Your task to perform on an android device: toggle javascript in the chrome app Image 0: 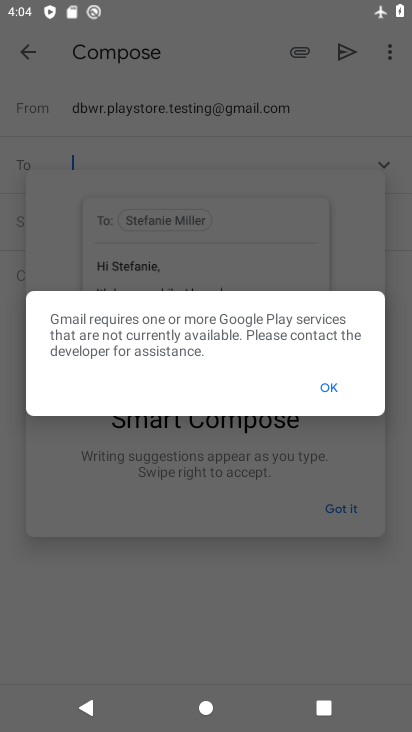
Step 0: press home button
Your task to perform on an android device: toggle javascript in the chrome app Image 1: 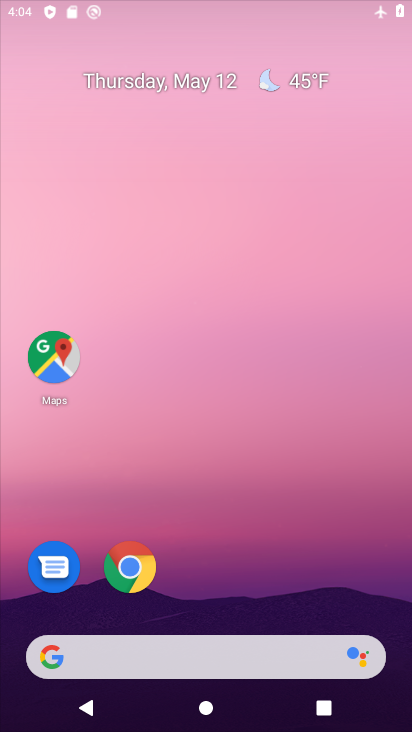
Step 1: drag from (244, 510) to (242, 122)
Your task to perform on an android device: toggle javascript in the chrome app Image 2: 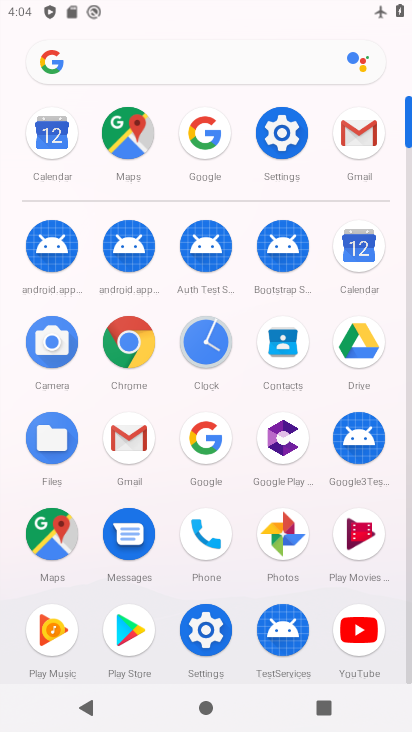
Step 2: click (131, 345)
Your task to perform on an android device: toggle javascript in the chrome app Image 3: 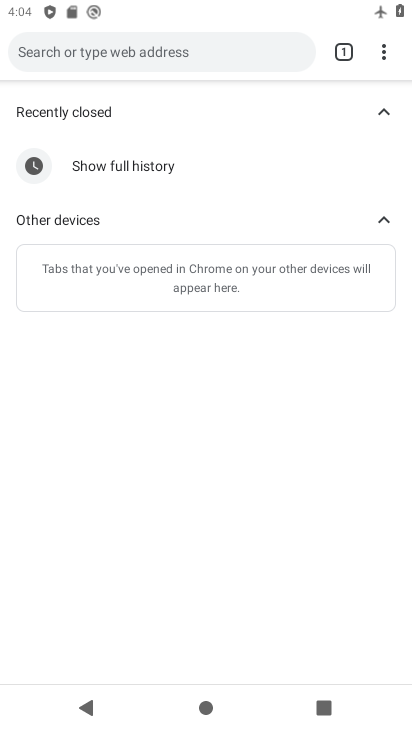
Step 3: drag from (381, 55) to (208, 490)
Your task to perform on an android device: toggle javascript in the chrome app Image 4: 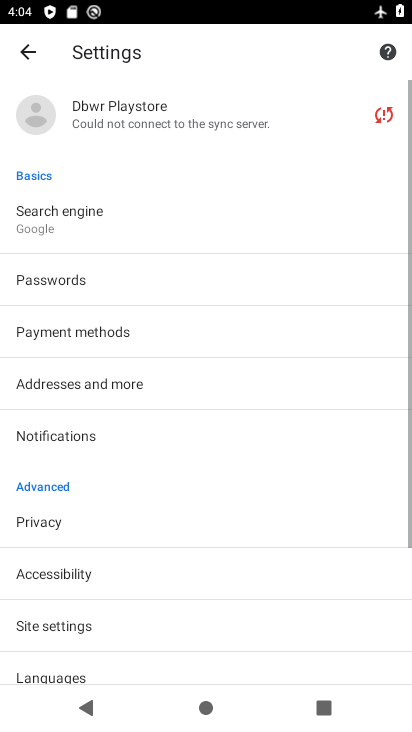
Step 4: click (151, 616)
Your task to perform on an android device: toggle javascript in the chrome app Image 5: 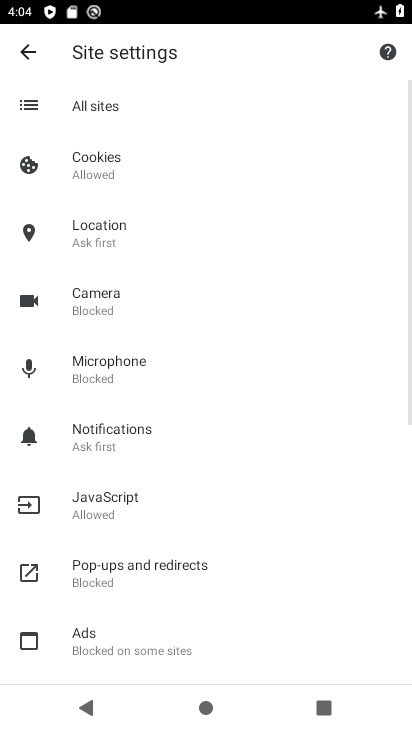
Step 5: click (135, 522)
Your task to perform on an android device: toggle javascript in the chrome app Image 6: 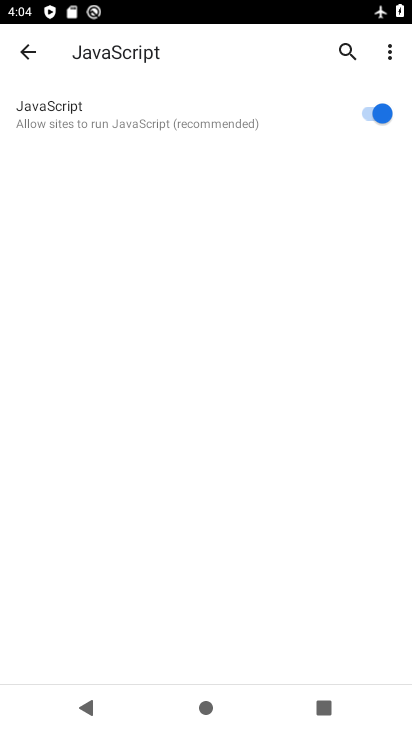
Step 6: click (361, 116)
Your task to perform on an android device: toggle javascript in the chrome app Image 7: 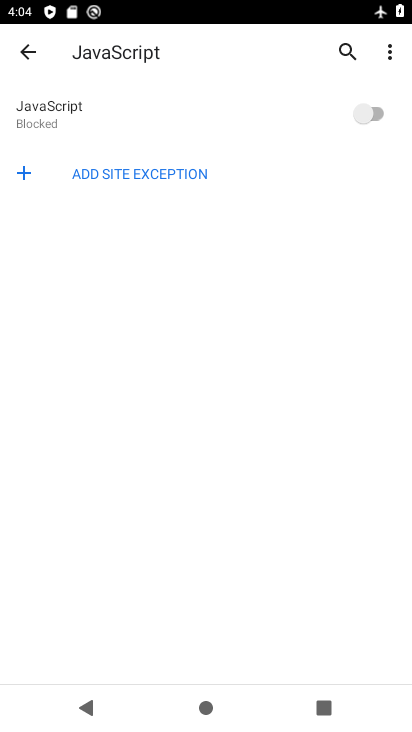
Step 7: task complete